Your task to perform on an android device: Open calendar and show me the first week of next month Image 0: 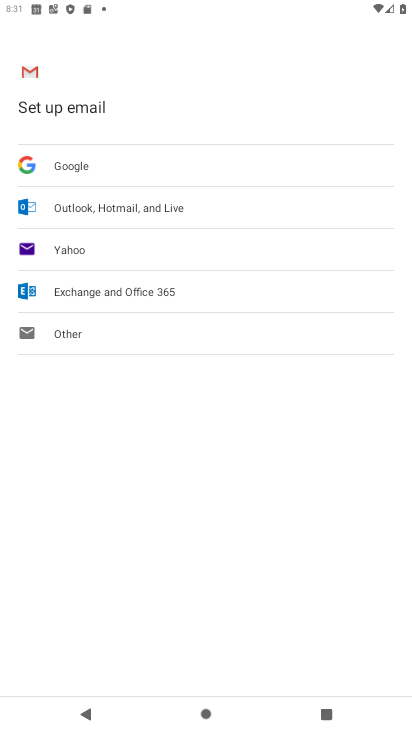
Step 0: press home button
Your task to perform on an android device: Open calendar and show me the first week of next month Image 1: 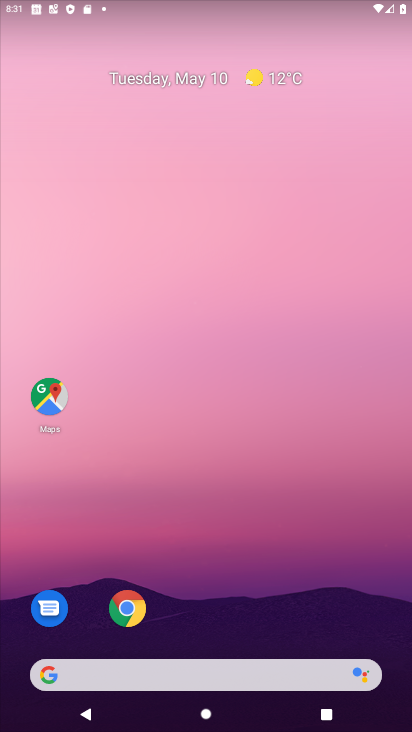
Step 1: drag from (195, 664) to (166, 221)
Your task to perform on an android device: Open calendar and show me the first week of next month Image 2: 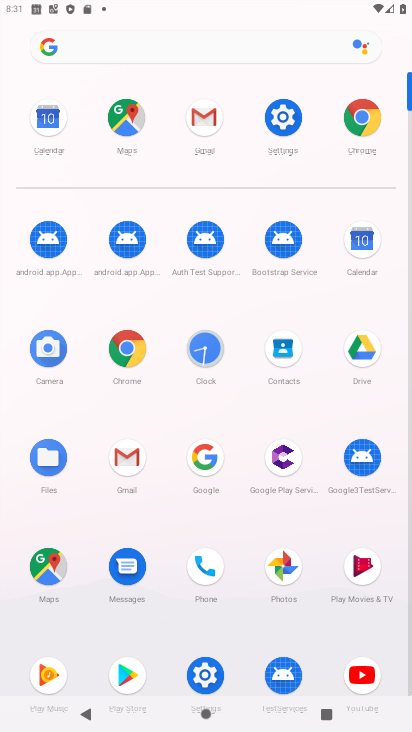
Step 2: click (364, 238)
Your task to perform on an android device: Open calendar and show me the first week of next month Image 3: 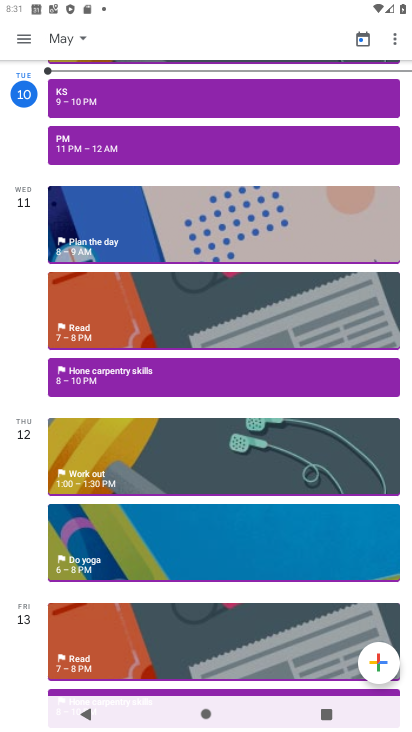
Step 3: click (20, 31)
Your task to perform on an android device: Open calendar and show me the first week of next month Image 4: 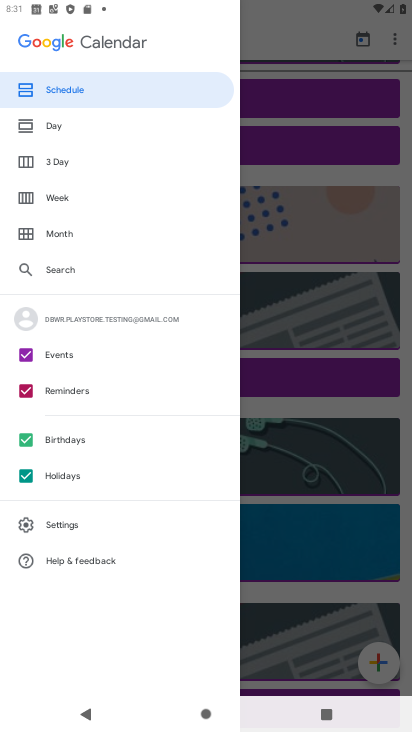
Step 4: click (57, 229)
Your task to perform on an android device: Open calendar and show me the first week of next month Image 5: 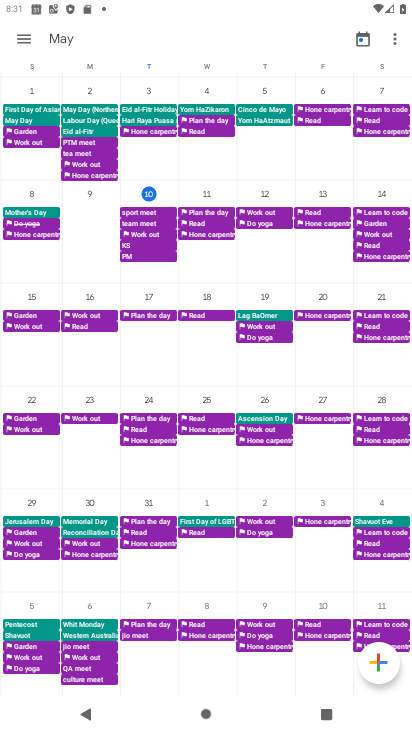
Step 5: task complete